Your task to perform on an android device: check android version Image 0: 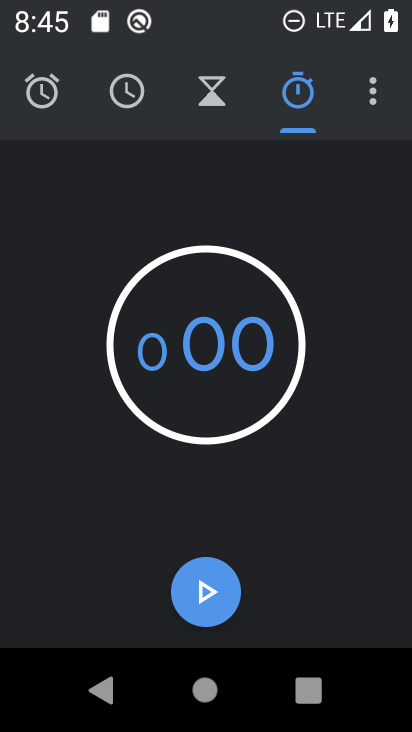
Step 0: press home button
Your task to perform on an android device: check android version Image 1: 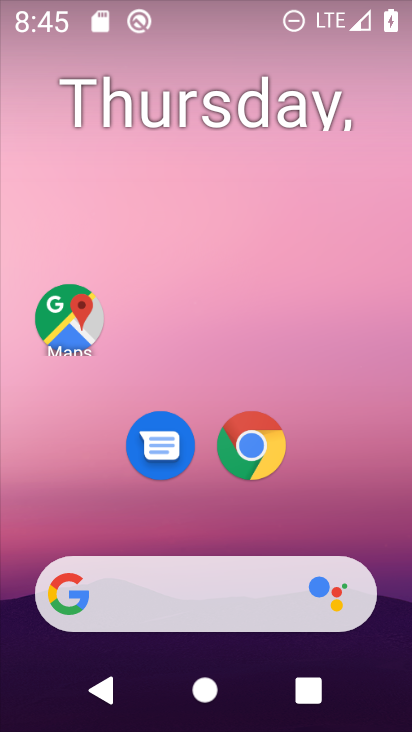
Step 1: drag from (390, 636) to (336, 30)
Your task to perform on an android device: check android version Image 2: 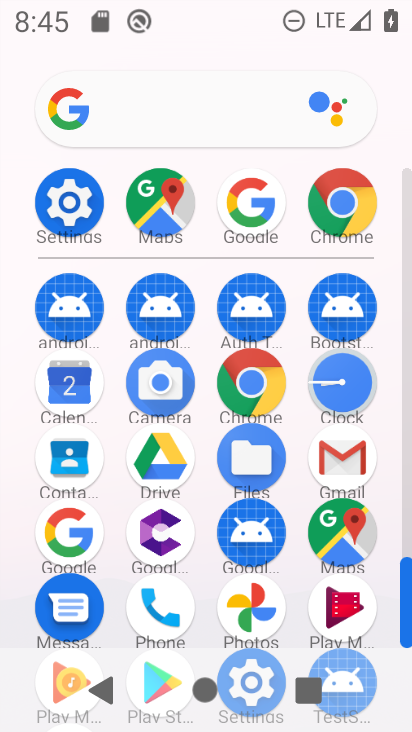
Step 2: click (65, 206)
Your task to perform on an android device: check android version Image 3: 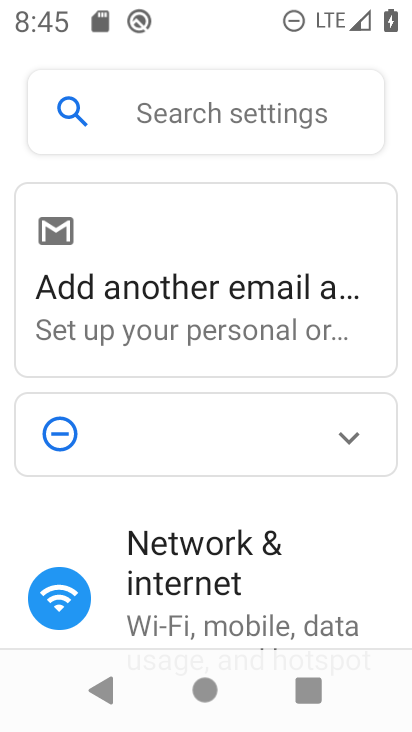
Step 3: click (213, 614)
Your task to perform on an android device: check android version Image 4: 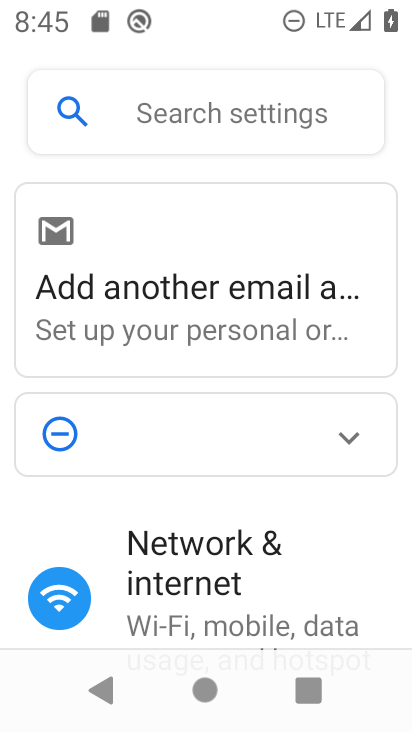
Step 4: drag from (213, 592) to (214, 553)
Your task to perform on an android device: check android version Image 5: 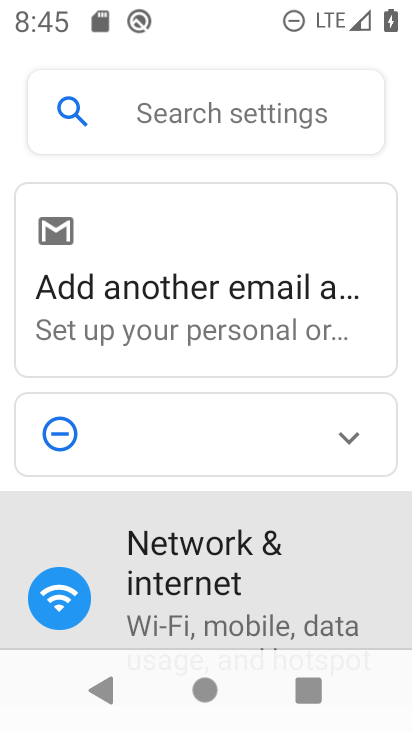
Step 5: drag from (216, 350) to (188, 126)
Your task to perform on an android device: check android version Image 6: 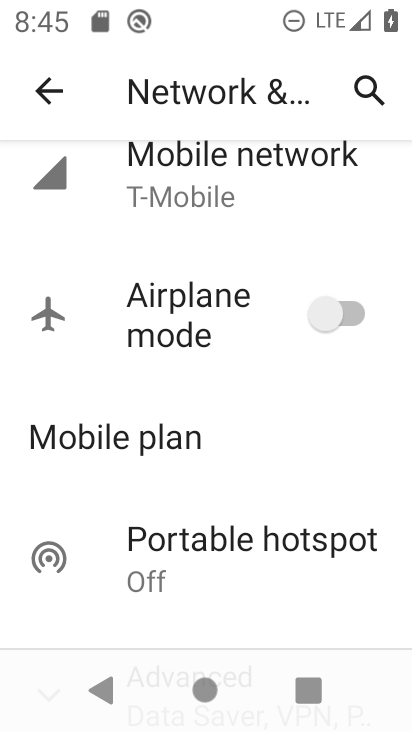
Step 6: press back button
Your task to perform on an android device: check android version Image 7: 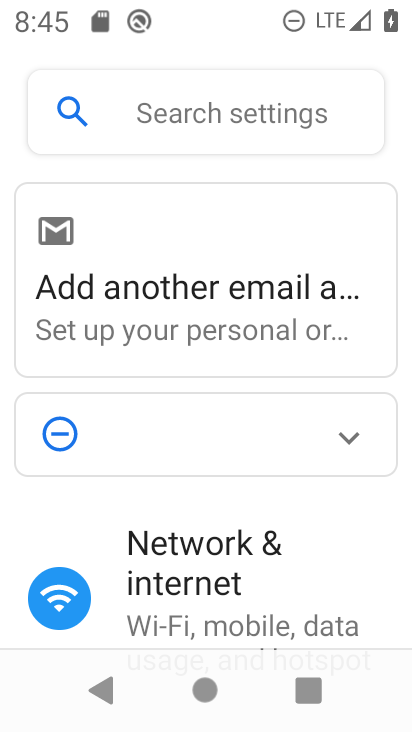
Step 7: drag from (347, 582) to (337, 16)
Your task to perform on an android device: check android version Image 8: 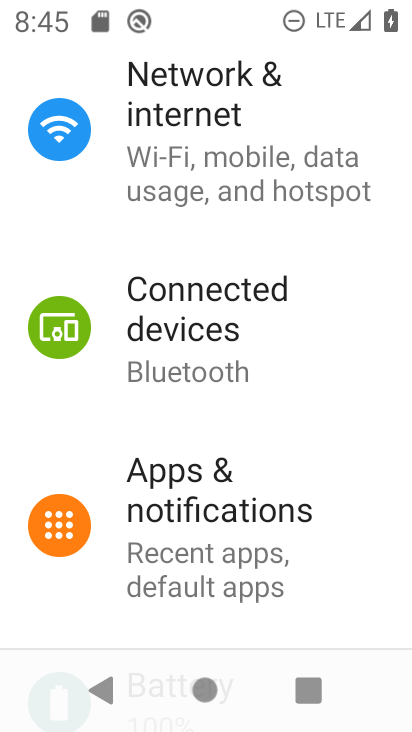
Step 8: drag from (328, 610) to (291, 25)
Your task to perform on an android device: check android version Image 9: 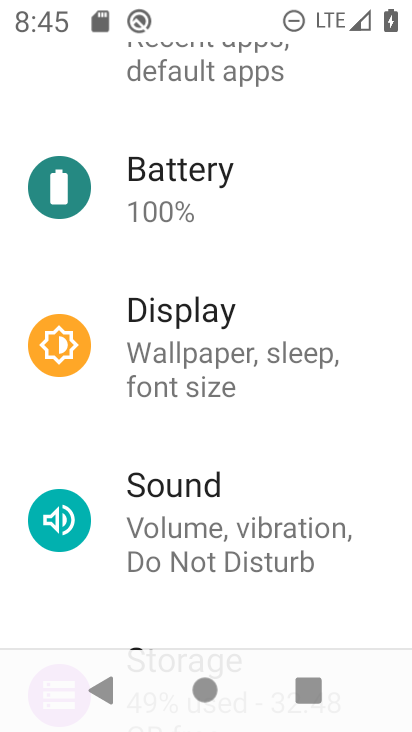
Step 9: drag from (326, 603) to (321, 16)
Your task to perform on an android device: check android version Image 10: 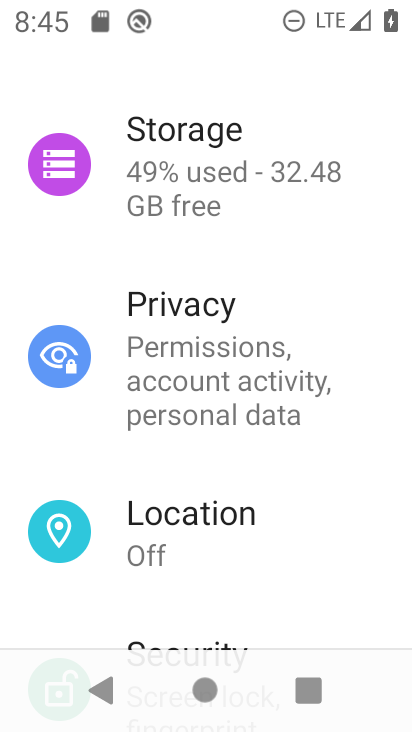
Step 10: drag from (290, 587) to (375, 24)
Your task to perform on an android device: check android version Image 11: 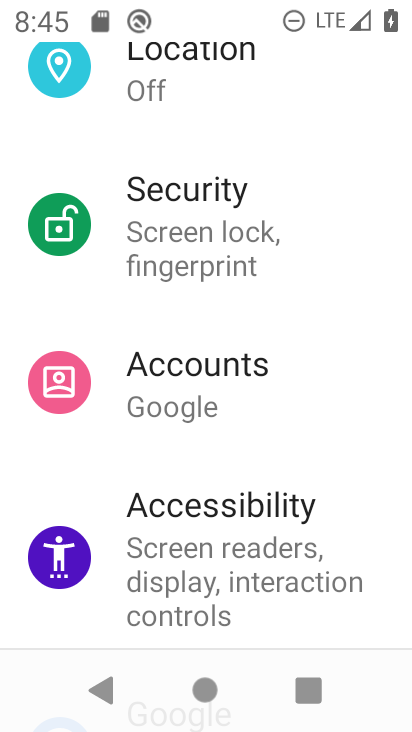
Step 11: drag from (317, 583) to (337, 41)
Your task to perform on an android device: check android version Image 12: 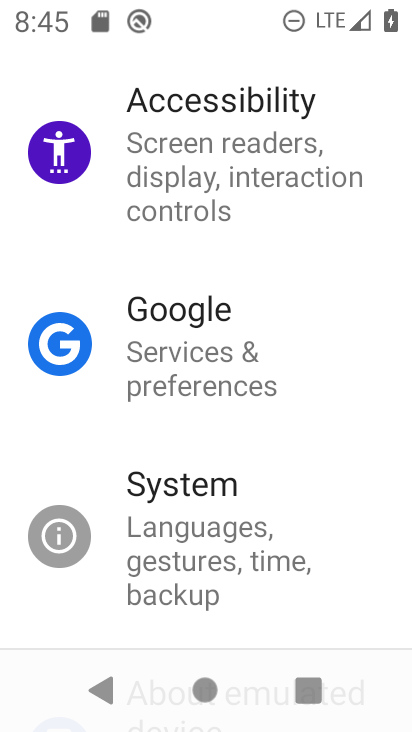
Step 12: drag from (288, 574) to (301, 19)
Your task to perform on an android device: check android version Image 13: 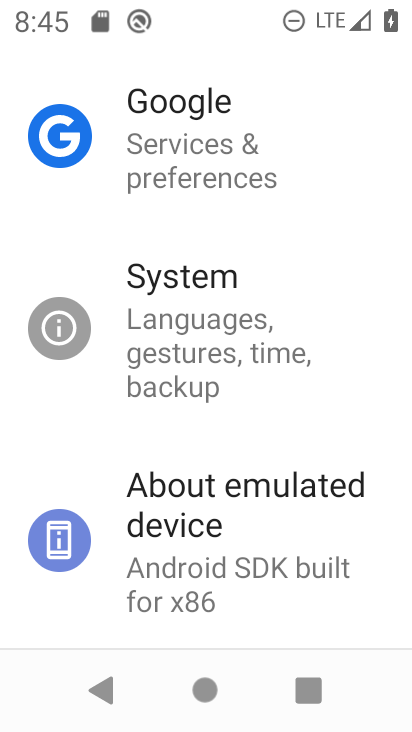
Step 13: click (297, 526)
Your task to perform on an android device: check android version Image 14: 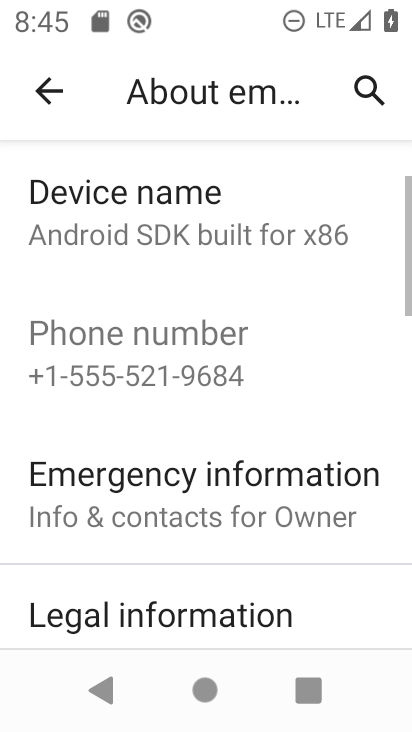
Step 14: drag from (339, 556) to (310, 132)
Your task to perform on an android device: check android version Image 15: 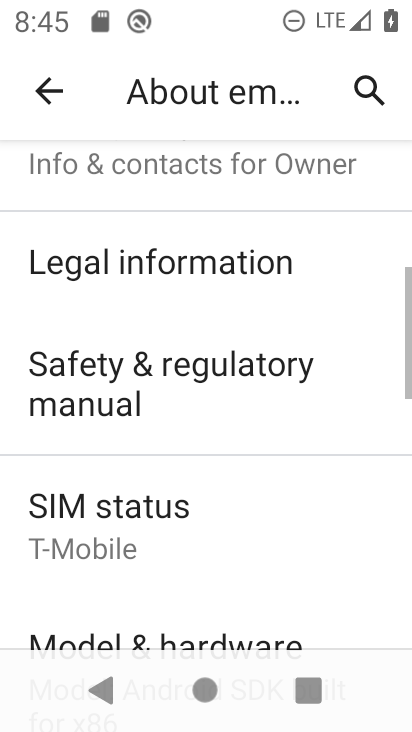
Step 15: drag from (319, 515) to (324, 62)
Your task to perform on an android device: check android version Image 16: 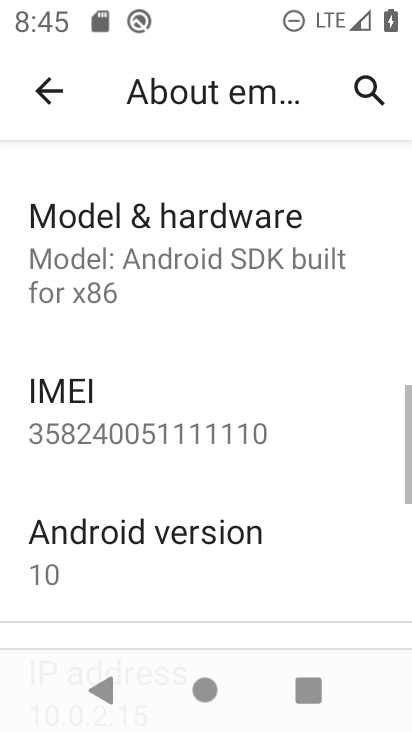
Step 16: click (225, 566)
Your task to perform on an android device: check android version Image 17: 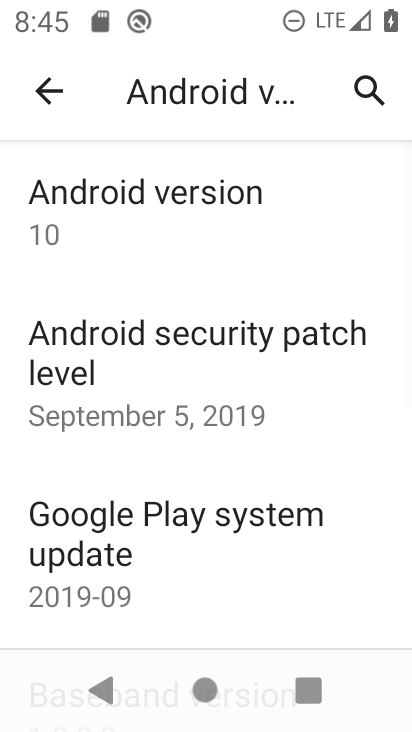
Step 17: task complete